Your task to perform on an android device: Add dell xps to the cart on target Image 0: 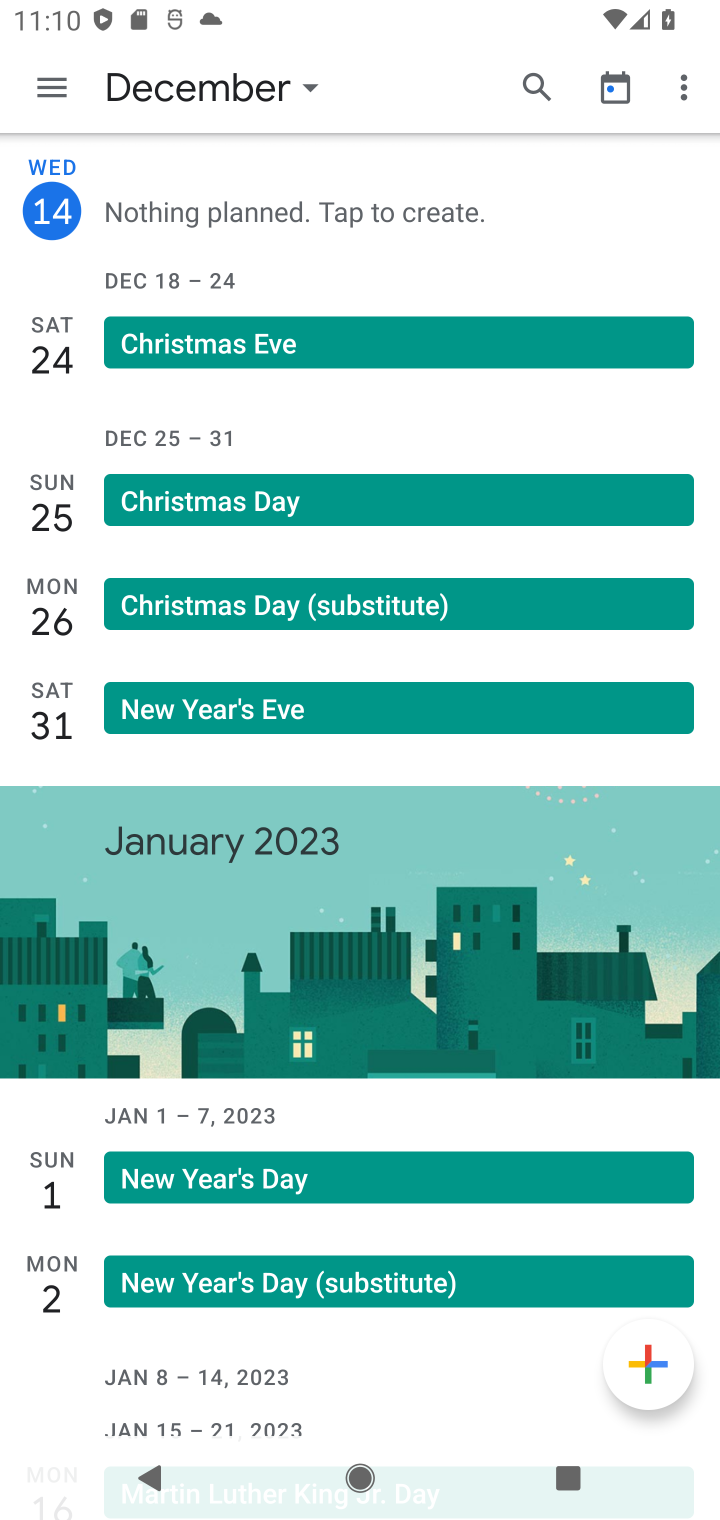
Step 0: press home button
Your task to perform on an android device: Add dell xps to the cart on target Image 1: 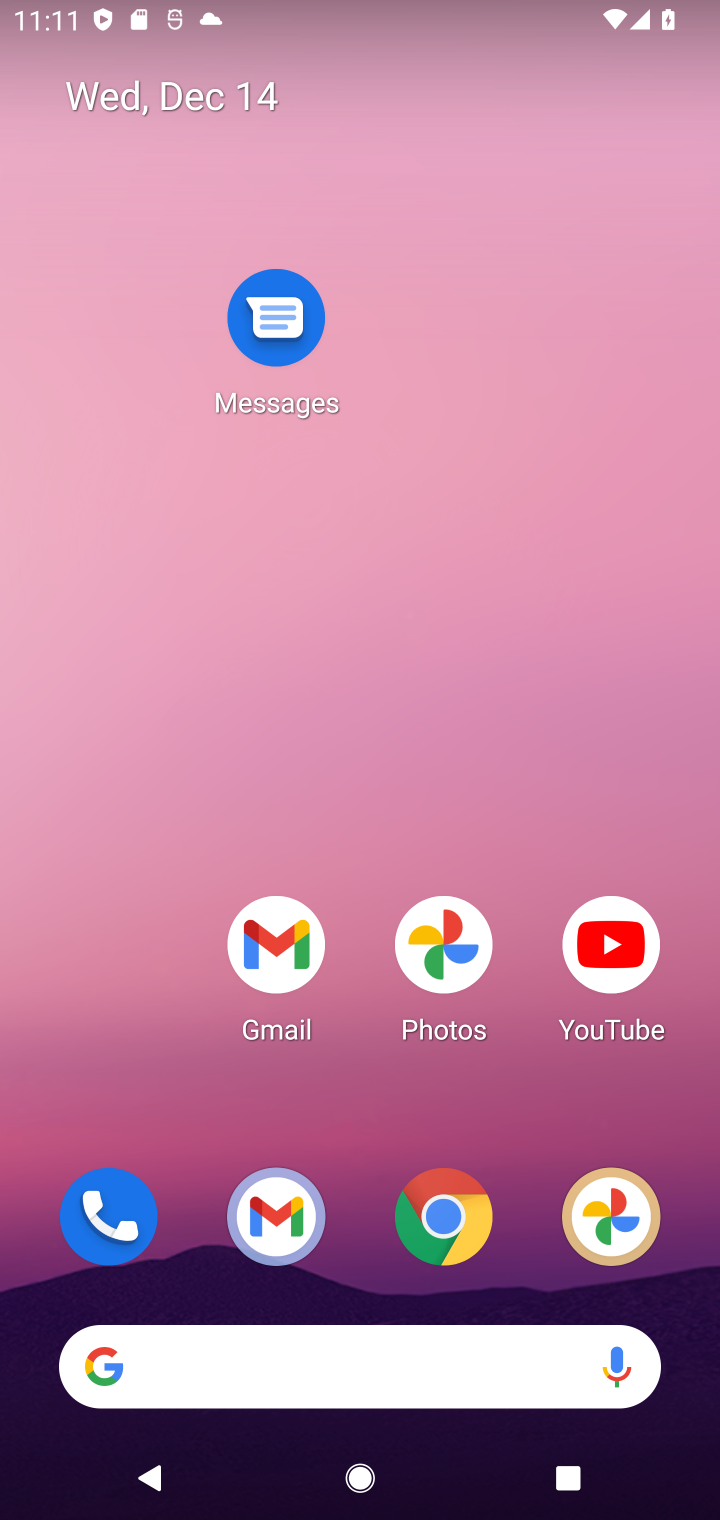
Step 1: drag from (384, 1317) to (382, 714)
Your task to perform on an android device: Add dell xps to the cart on target Image 2: 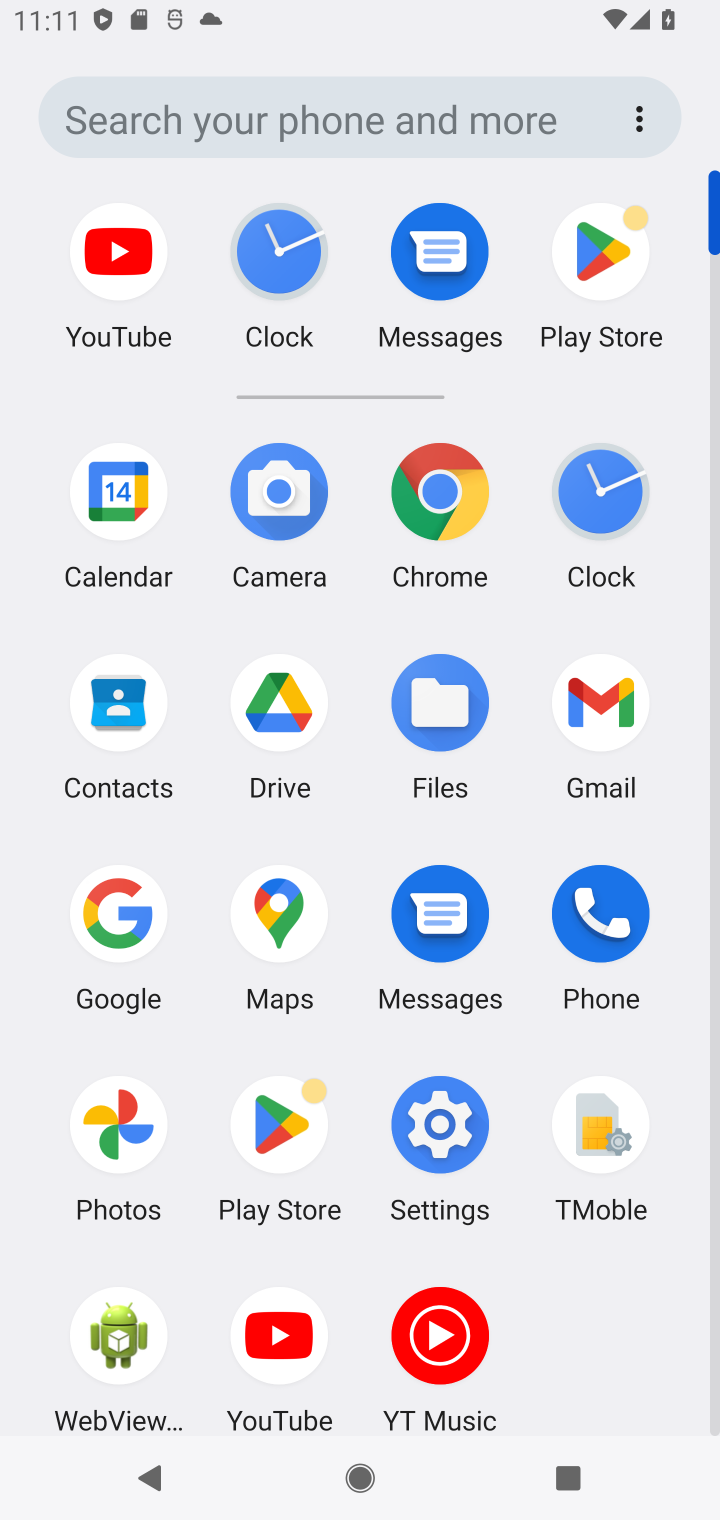
Step 2: click (132, 917)
Your task to perform on an android device: Add dell xps to the cart on target Image 3: 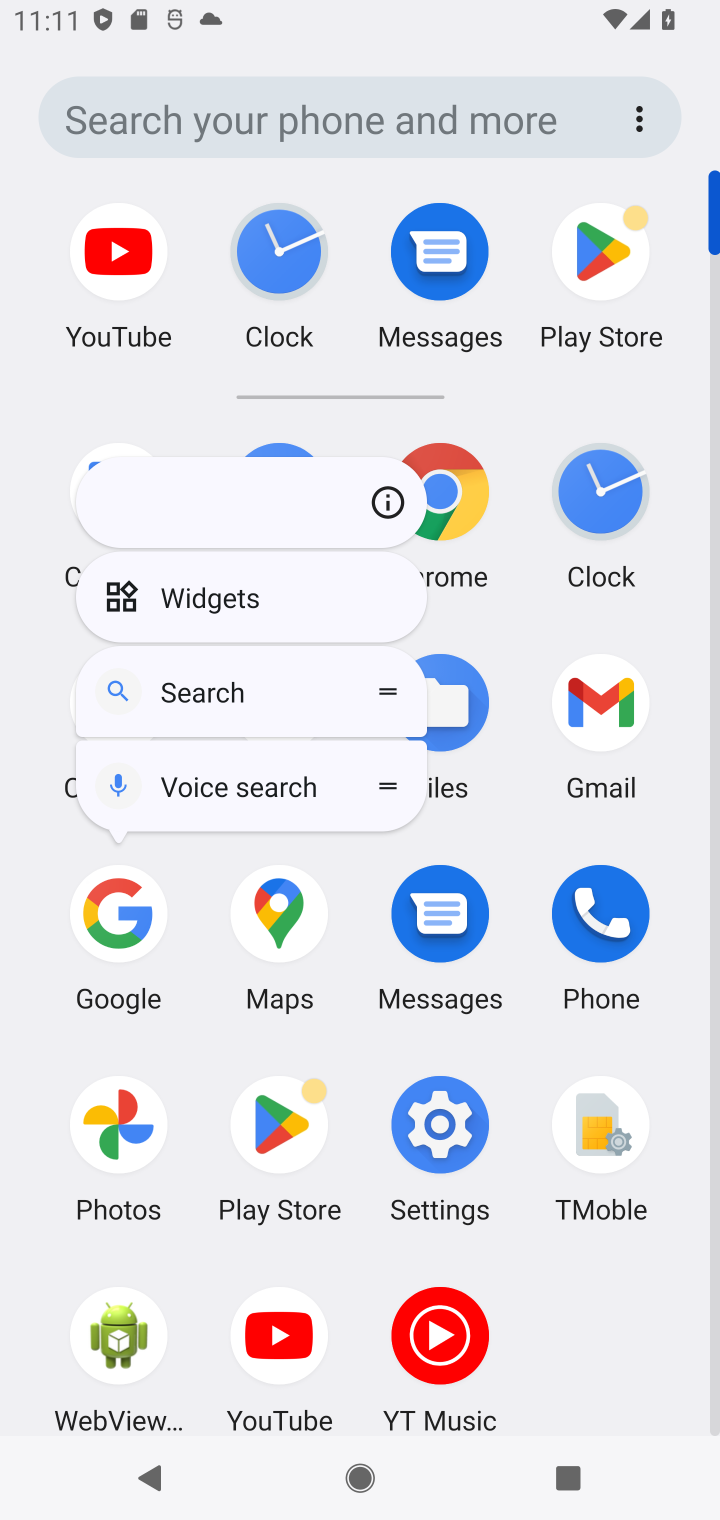
Step 3: click (125, 914)
Your task to perform on an android device: Add dell xps to the cart on target Image 4: 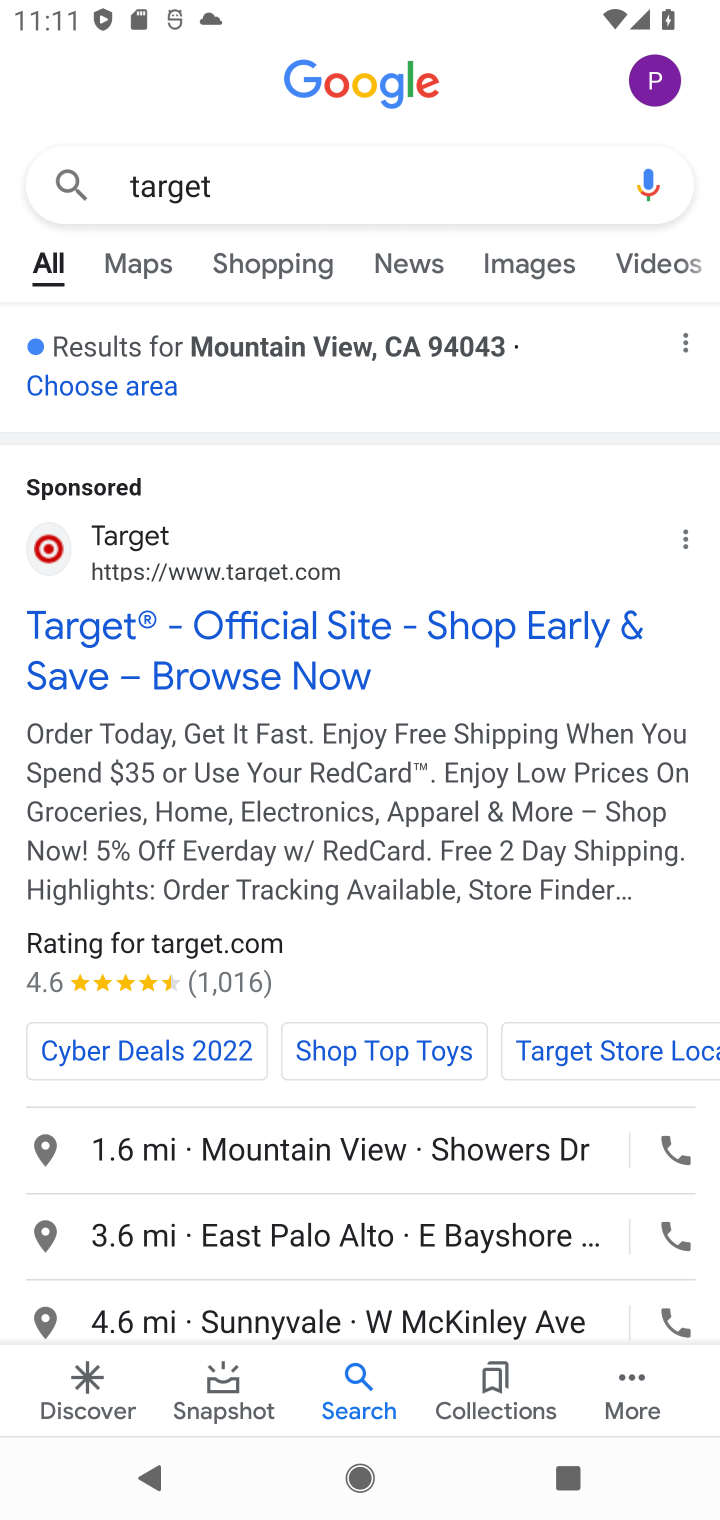
Step 4: click (165, 635)
Your task to perform on an android device: Add dell xps to the cart on target Image 5: 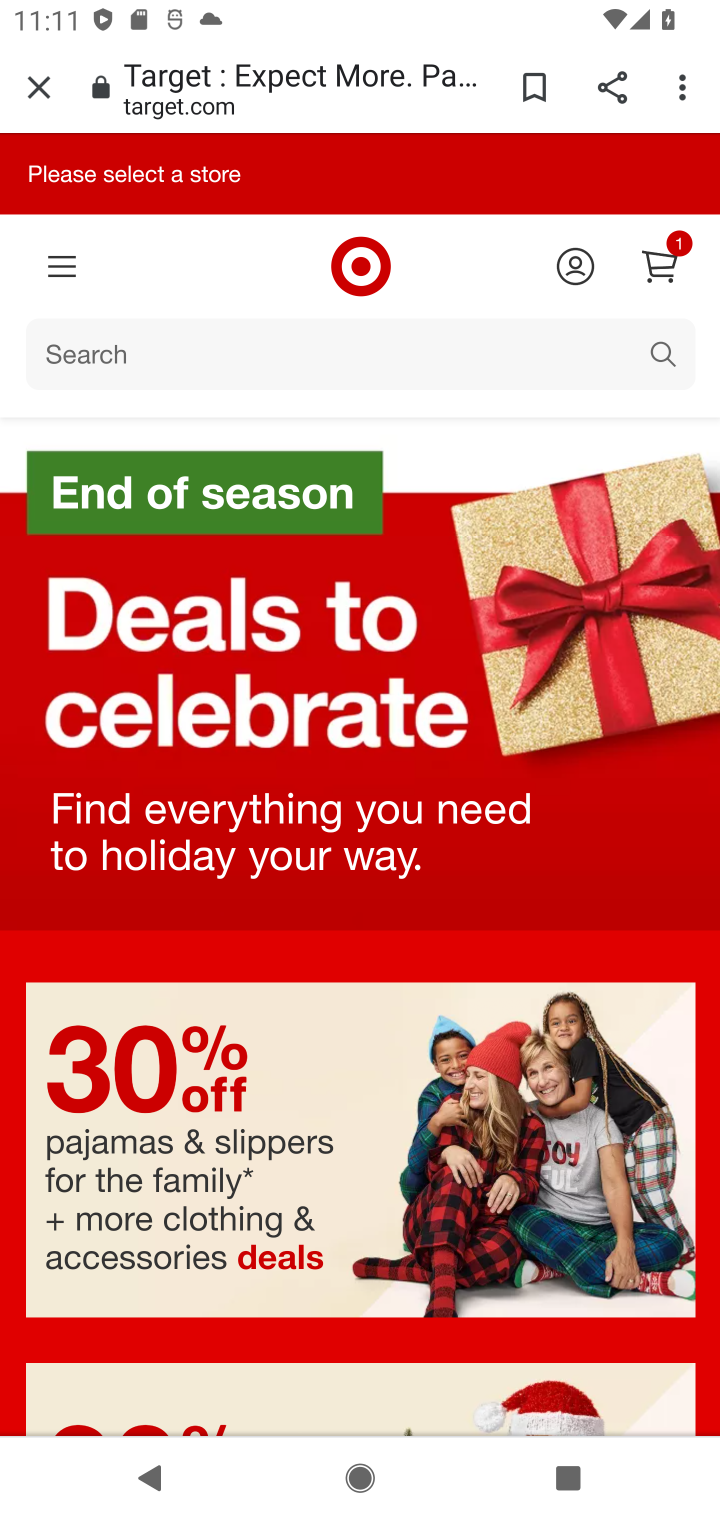
Step 5: click (218, 340)
Your task to perform on an android device: Add dell xps to the cart on target Image 6: 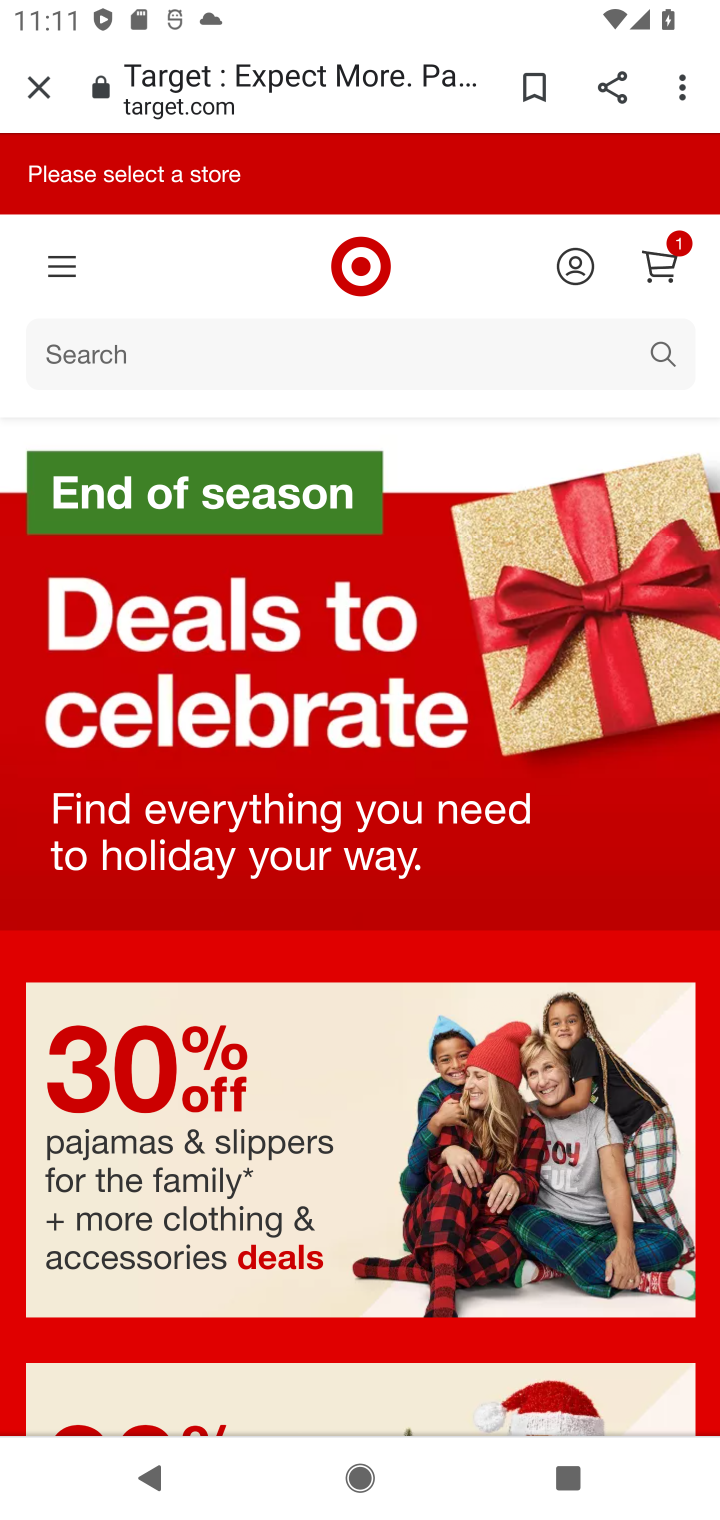
Step 6: click (202, 348)
Your task to perform on an android device: Add dell xps to the cart on target Image 7: 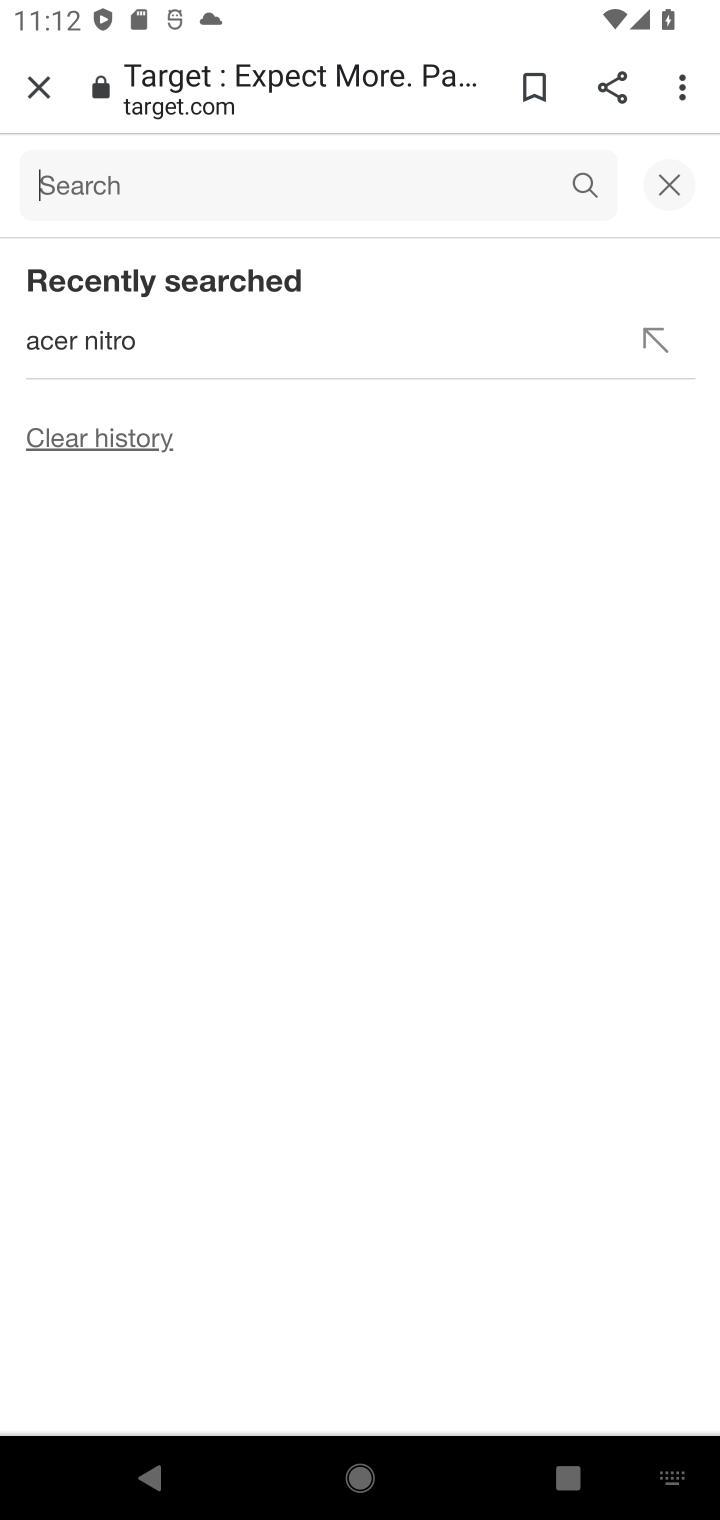
Step 7: type "dell xps"
Your task to perform on an android device: Add dell xps to the cart on target Image 8: 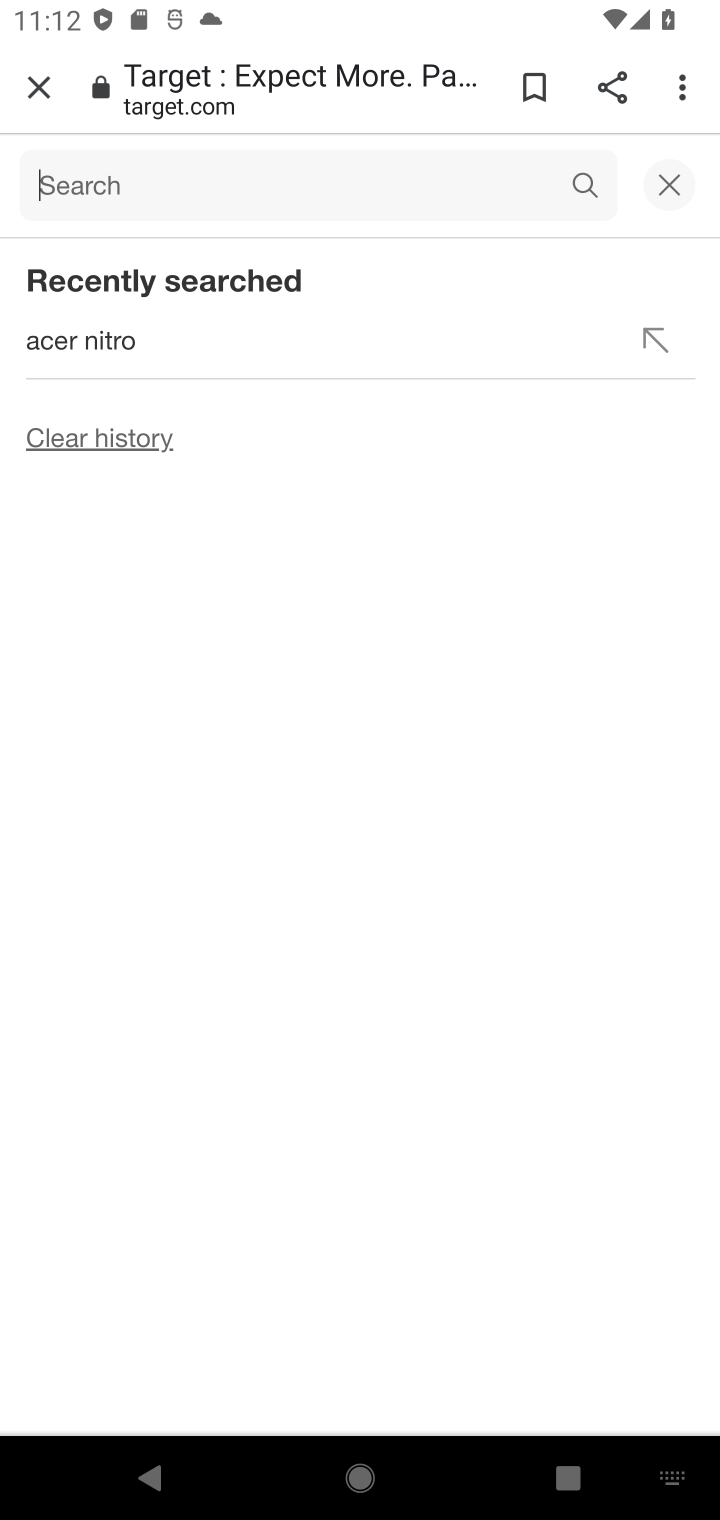
Step 8: click (572, 173)
Your task to perform on an android device: Add dell xps to the cart on target Image 9: 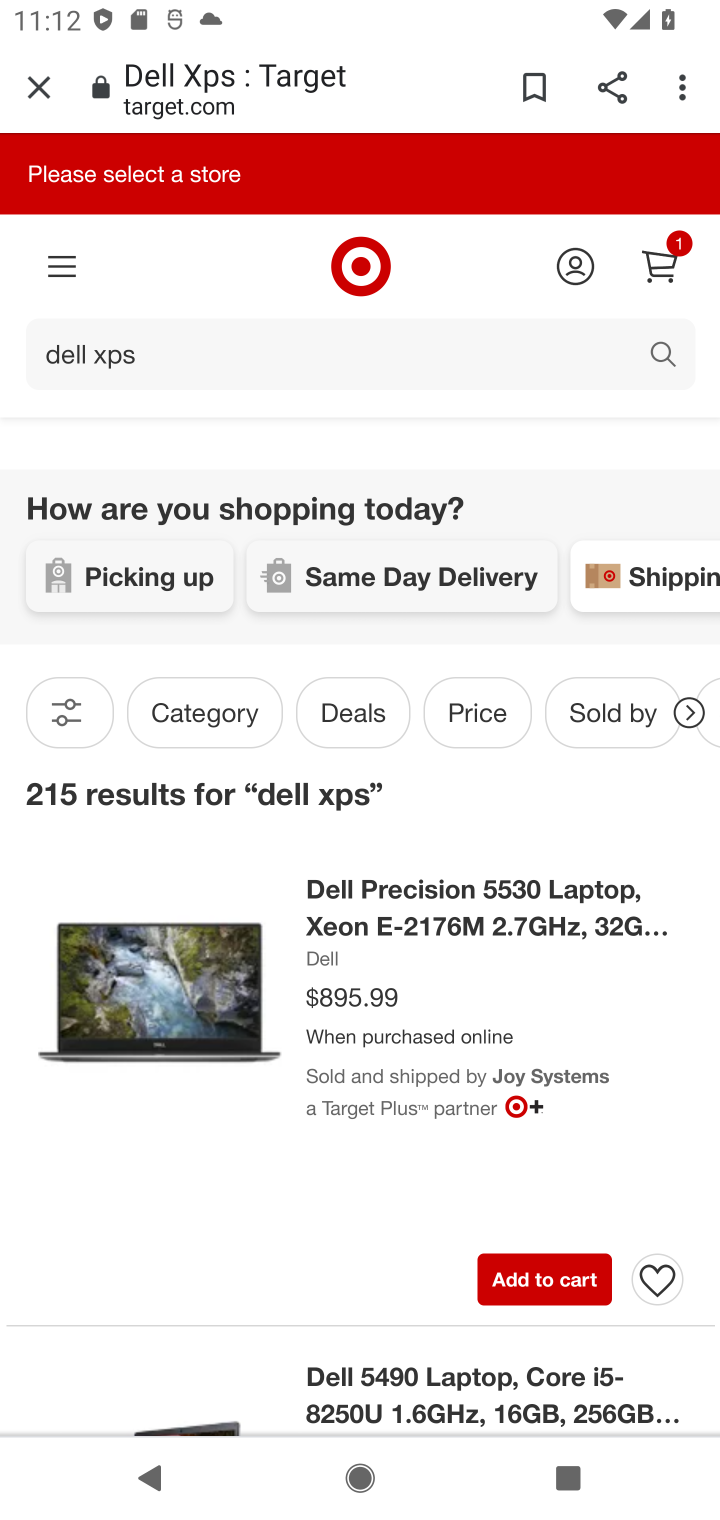
Step 9: click (555, 1286)
Your task to perform on an android device: Add dell xps to the cart on target Image 10: 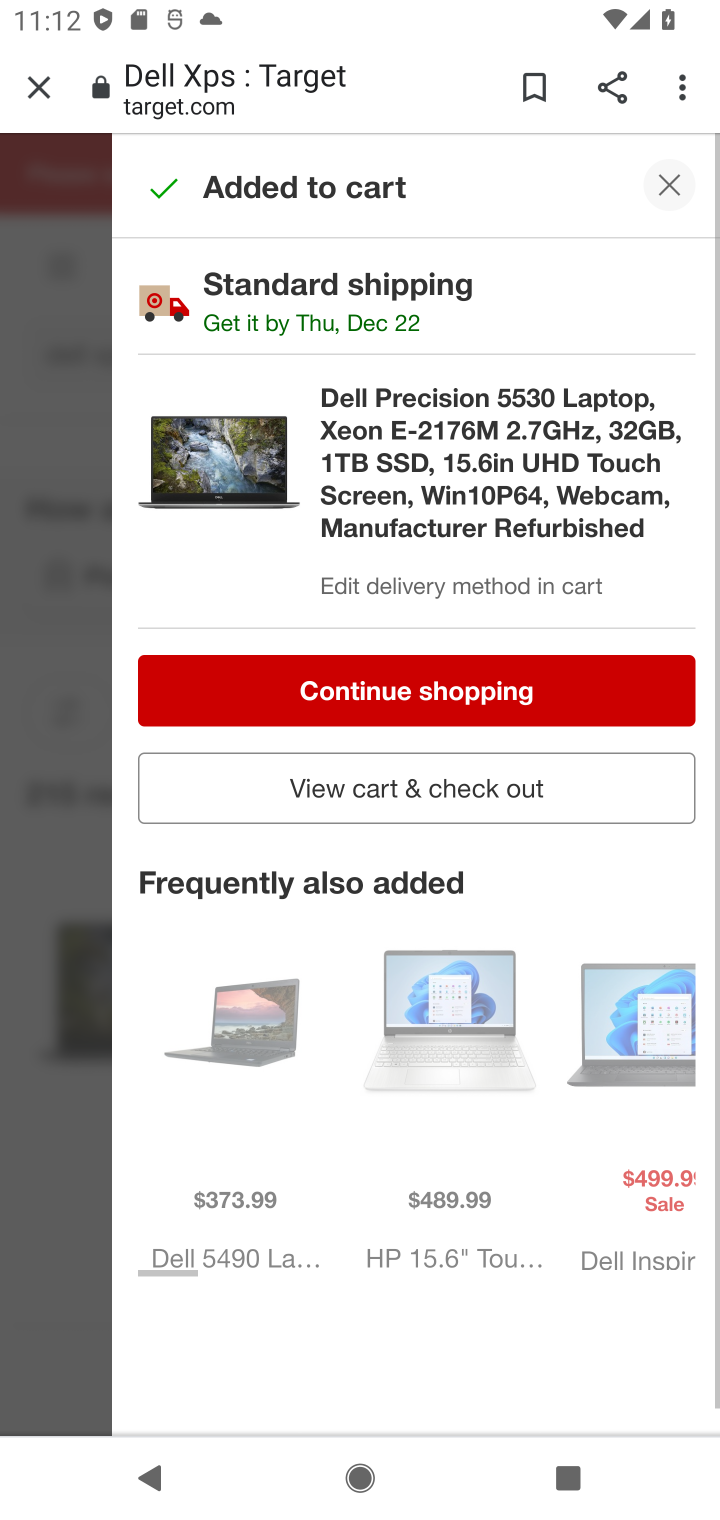
Step 10: task complete